Your task to perform on an android device: change the clock display to show seconds Image 0: 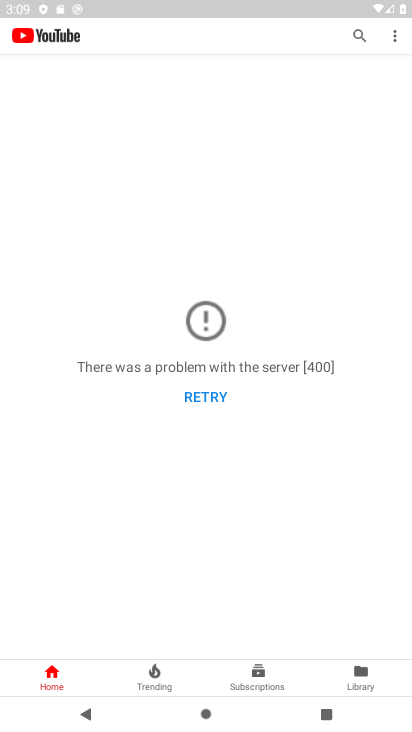
Step 0: task impossible